Your task to perform on an android device: Open Chrome and go to settings Image 0: 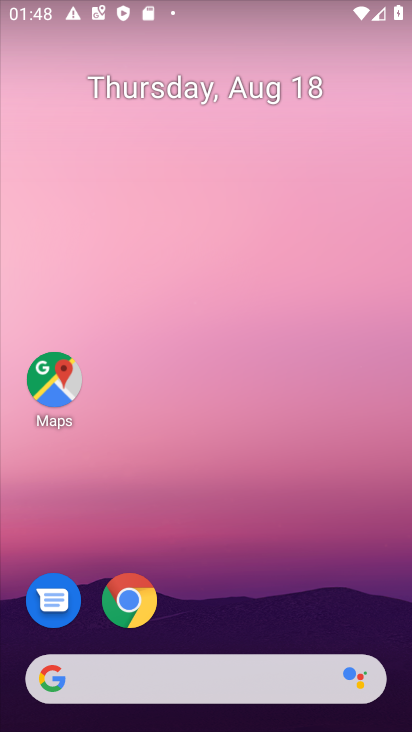
Step 0: press home button
Your task to perform on an android device: Open Chrome and go to settings Image 1: 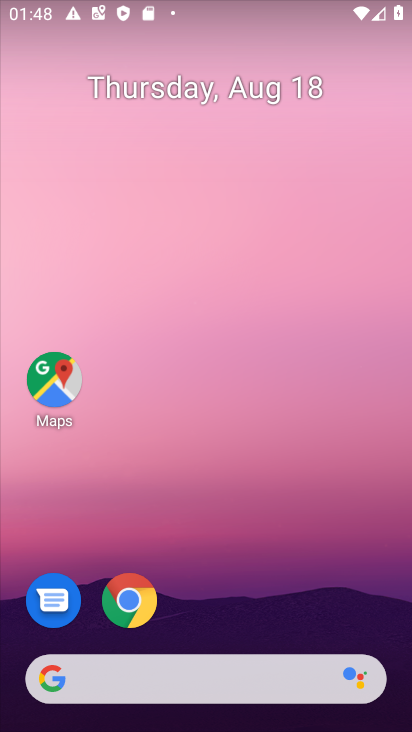
Step 1: click (145, 599)
Your task to perform on an android device: Open Chrome and go to settings Image 2: 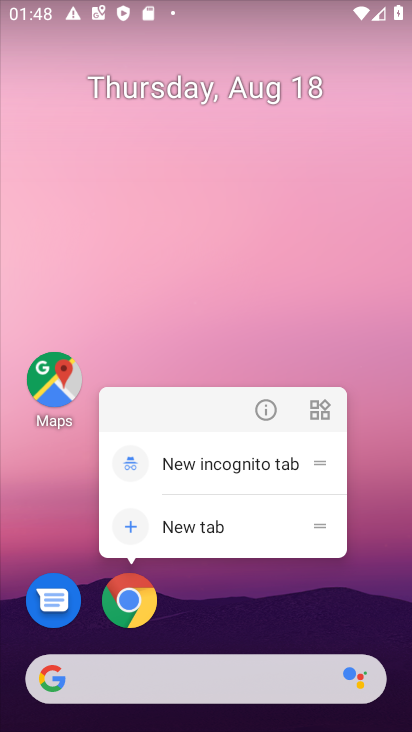
Step 2: click (142, 597)
Your task to perform on an android device: Open Chrome and go to settings Image 3: 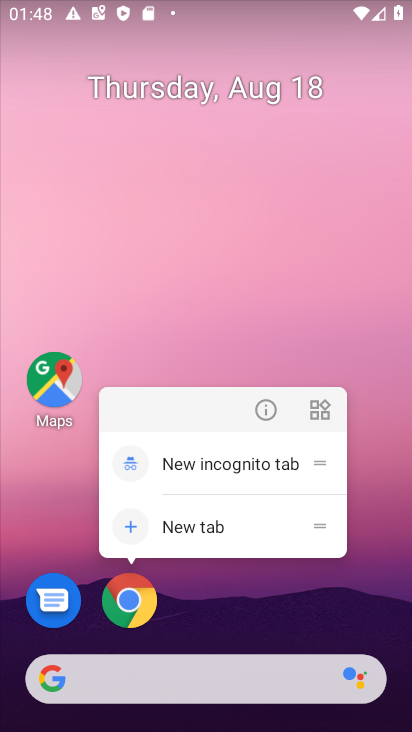
Step 3: click (142, 597)
Your task to perform on an android device: Open Chrome and go to settings Image 4: 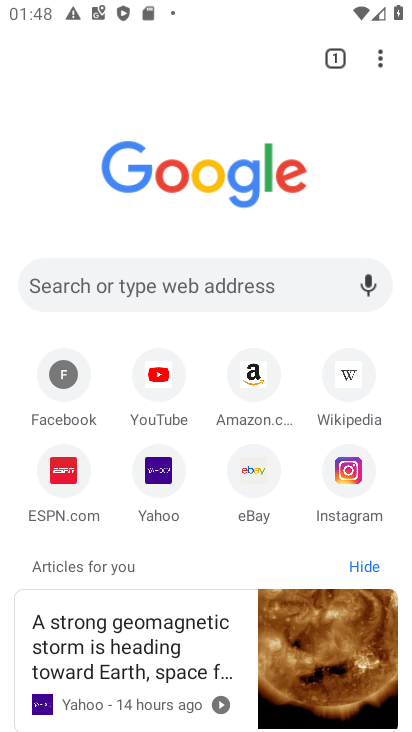
Step 4: task complete